Your task to perform on an android device: toggle data saver in the chrome app Image 0: 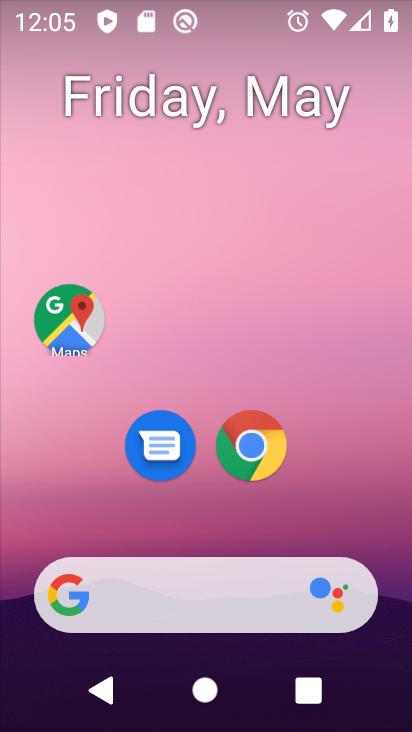
Step 0: click (258, 456)
Your task to perform on an android device: toggle data saver in the chrome app Image 1: 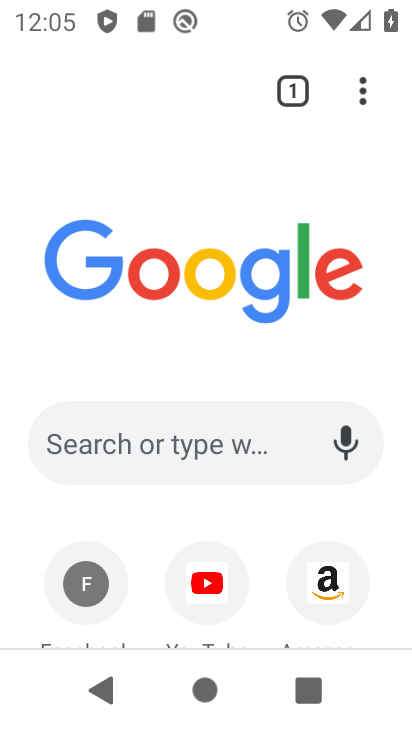
Step 1: click (364, 94)
Your task to perform on an android device: toggle data saver in the chrome app Image 2: 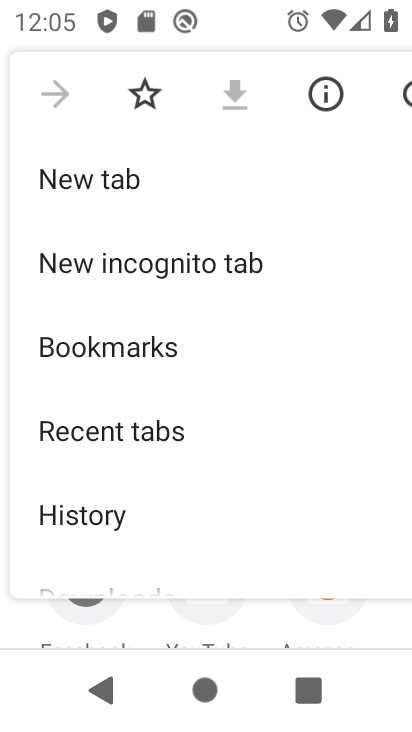
Step 2: drag from (167, 490) to (199, 155)
Your task to perform on an android device: toggle data saver in the chrome app Image 3: 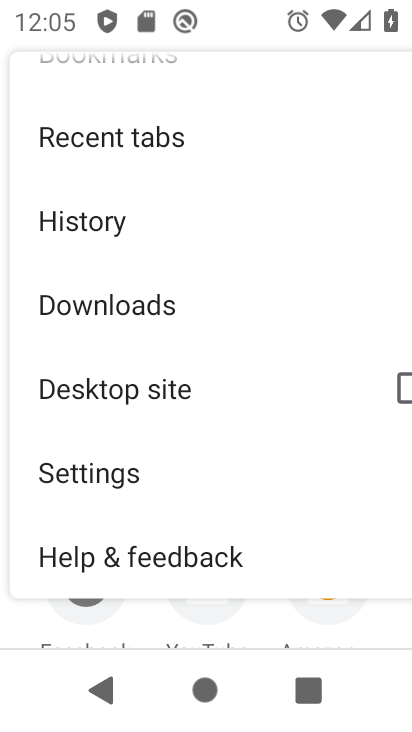
Step 3: click (82, 480)
Your task to perform on an android device: toggle data saver in the chrome app Image 4: 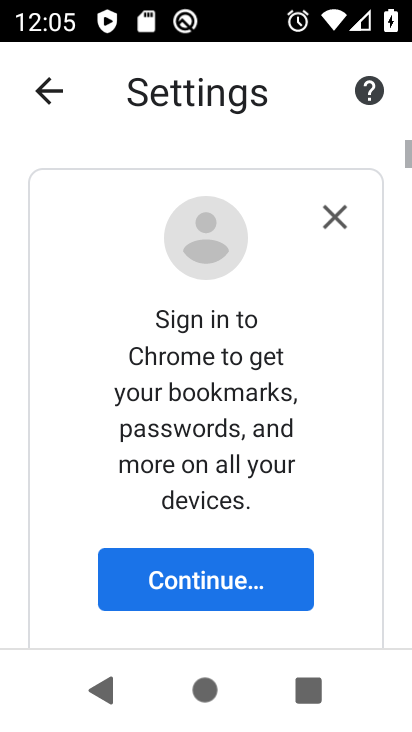
Step 4: drag from (310, 539) to (313, 104)
Your task to perform on an android device: toggle data saver in the chrome app Image 5: 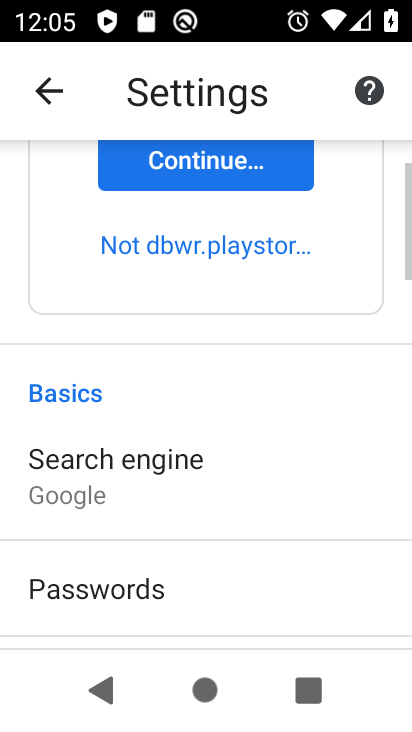
Step 5: drag from (275, 494) to (286, 164)
Your task to perform on an android device: toggle data saver in the chrome app Image 6: 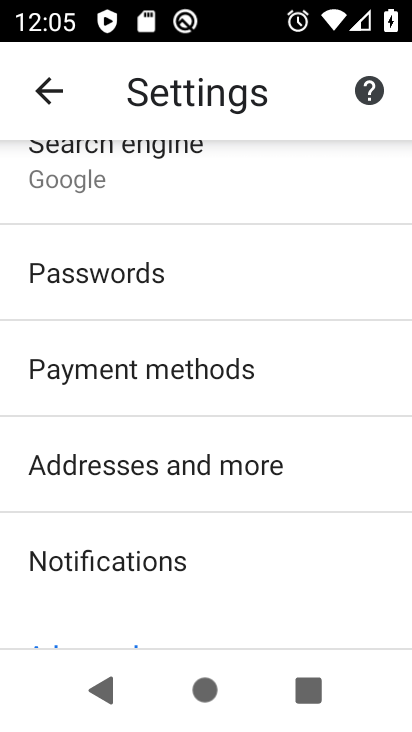
Step 6: drag from (258, 533) to (274, 183)
Your task to perform on an android device: toggle data saver in the chrome app Image 7: 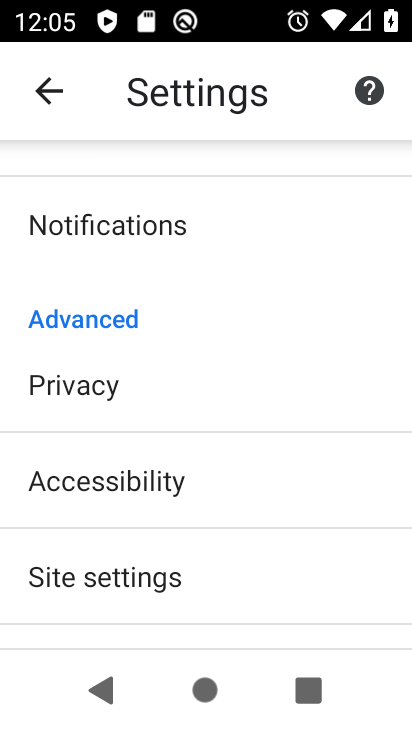
Step 7: drag from (198, 481) to (214, 201)
Your task to perform on an android device: toggle data saver in the chrome app Image 8: 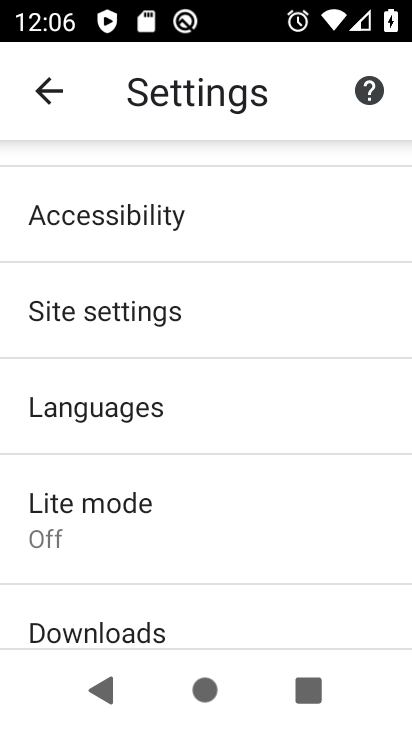
Step 8: drag from (244, 524) to (240, 306)
Your task to perform on an android device: toggle data saver in the chrome app Image 9: 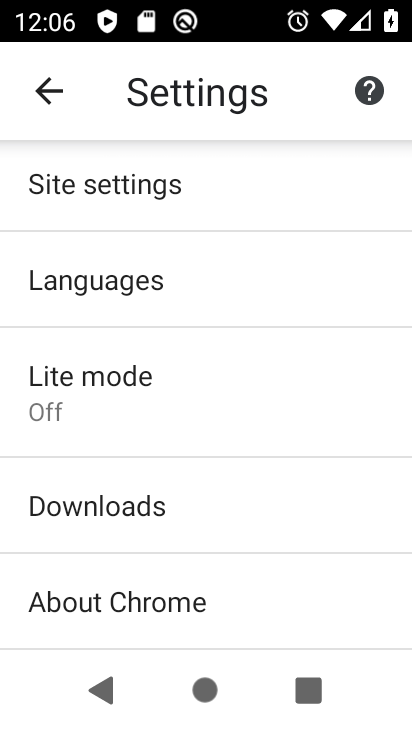
Step 9: click (77, 385)
Your task to perform on an android device: toggle data saver in the chrome app Image 10: 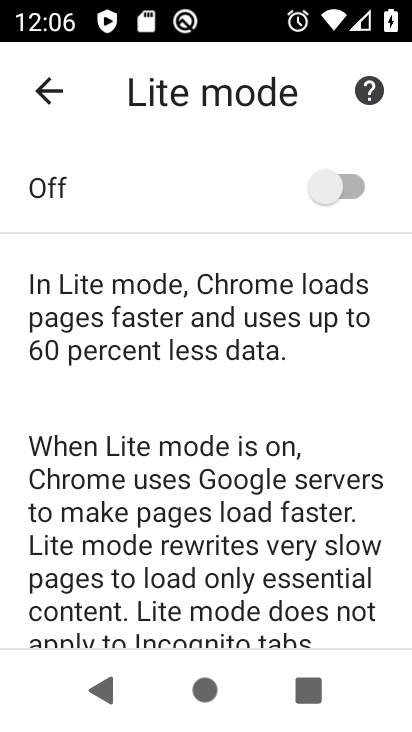
Step 10: click (322, 199)
Your task to perform on an android device: toggle data saver in the chrome app Image 11: 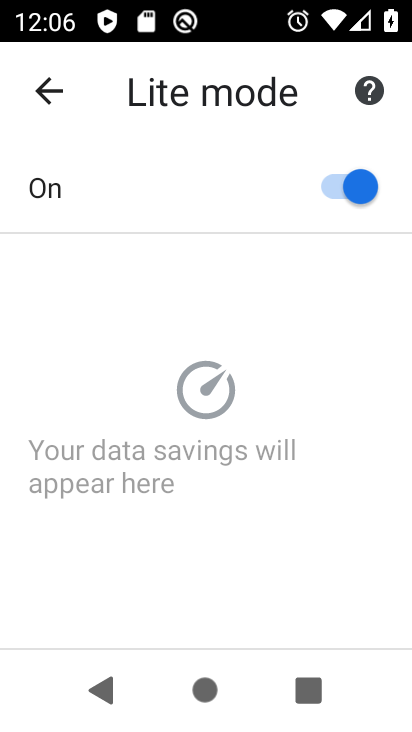
Step 11: task complete